Your task to perform on an android device: star an email in the gmail app Image 0: 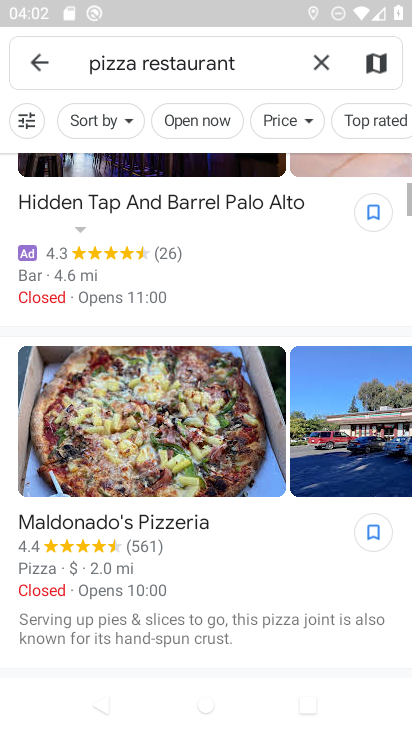
Step 0: press home button
Your task to perform on an android device: star an email in the gmail app Image 1: 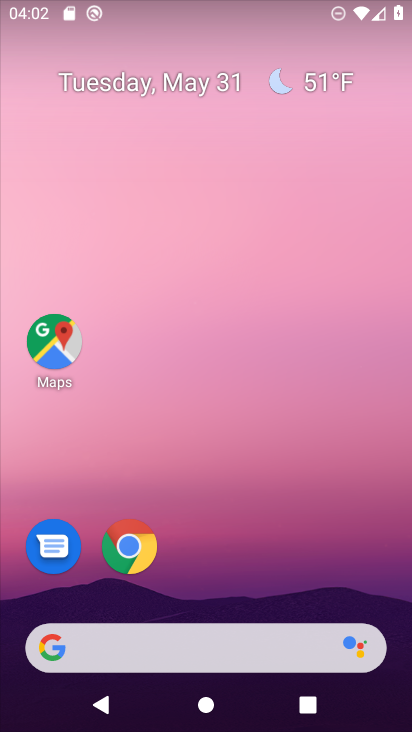
Step 1: drag from (205, 594) to (320, 137)
Your task to perform on an android device: star an email in the gmail app Image 2: 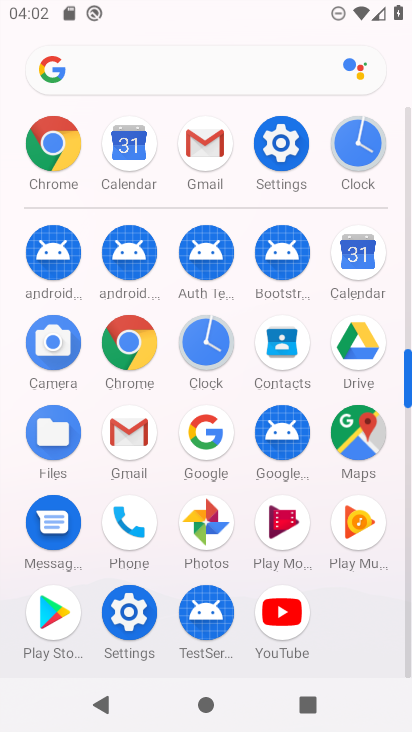
Step 2: click (198, 183)
Your task to perform on an android device: star an email in the gmail app Image 3: 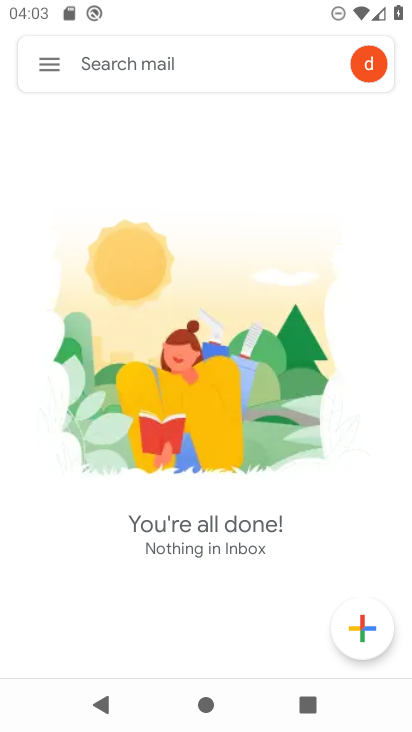
Step 3: click (41, 67)
Your task to perform on an android device: star an email in the gmail app Image 4: 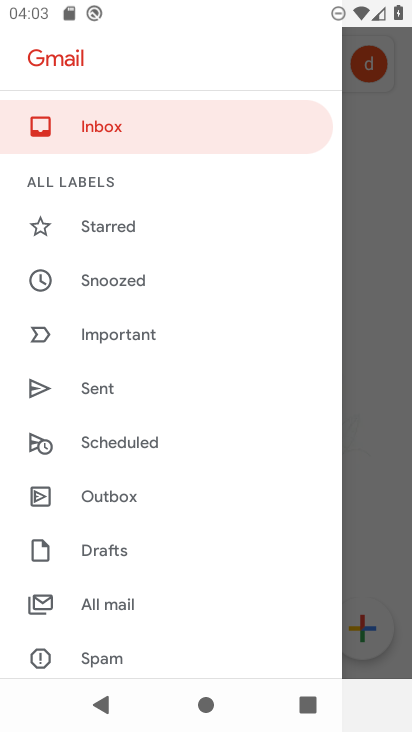
Step 4: click (106, 610)
Your task to perform on an android device: star an email in the gmail app Image 5: 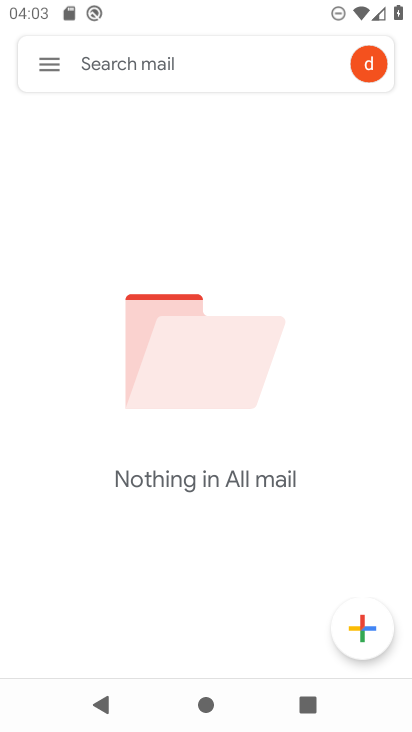
Step 5: task complete